Your task to perform on an android device: check the backup settings in the google photos Image 0: 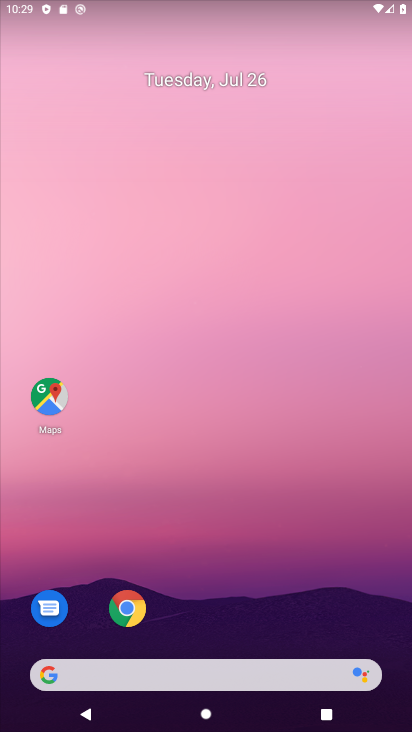
Step 0: drag from (238, 25) to (184, 35)
Your task to perform on an android device: check the backup settings in the google photos Image 1: 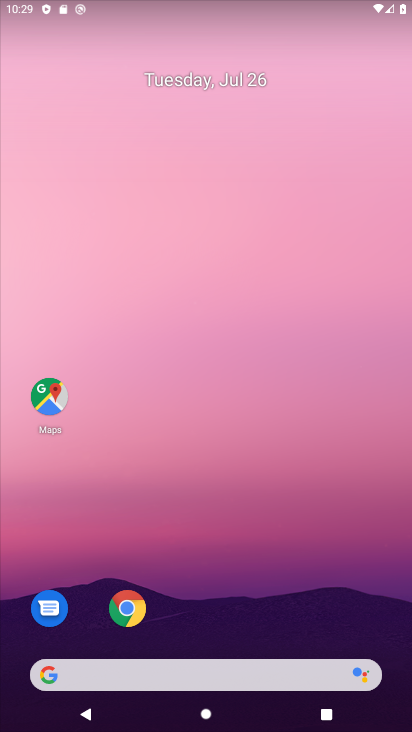
Step 1: drag from (246, 495) to (165, 16)
Your task to perform on an android device: check the backup settings in the google photos Image 2: 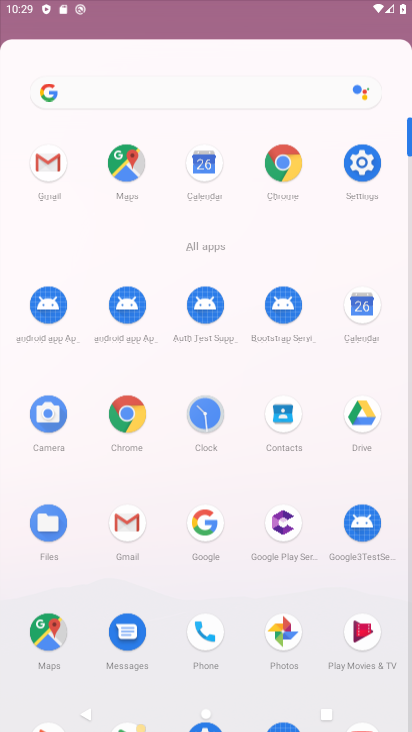
Step 2: drag from (283, 349) to (195, 27)
Your task to perform on an android device: check the backup settings in the google photos Image 3: 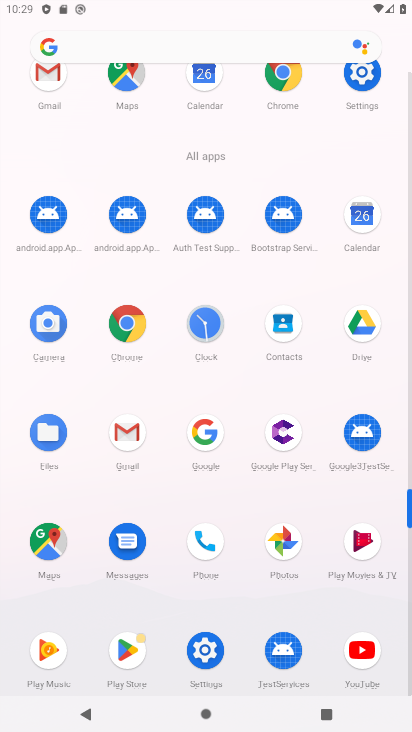
Step 3: click (284, 544)
Your task to perform on an android device: check the backup settings in the google photos Image 4: 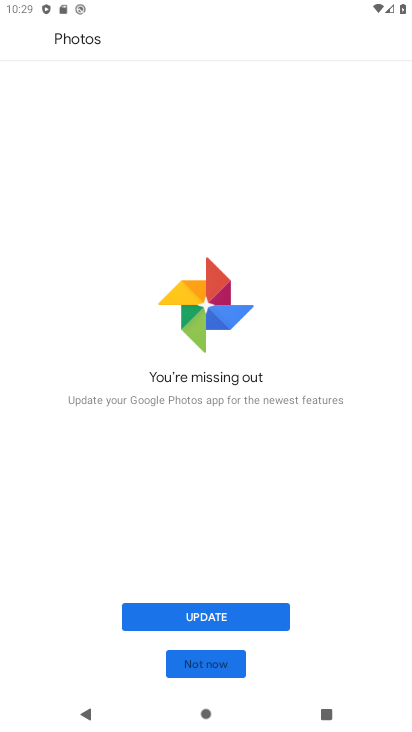
Step 4: click (216, 668)
Your task to perform on an android device: check the backup settings in the google photos Image 5: 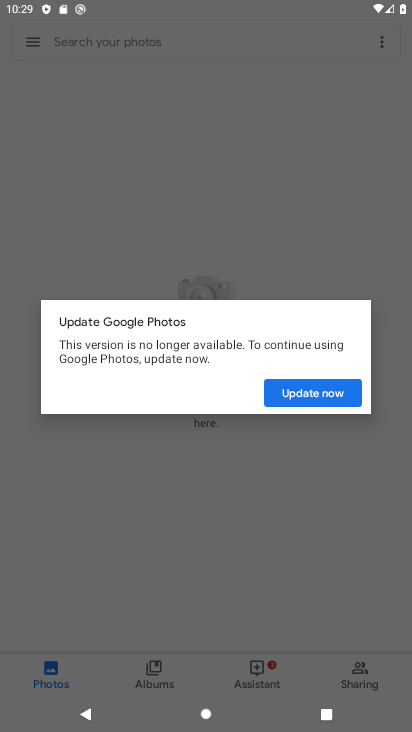
Step 5: click (310, 390)
Your task to perform on an android device: check the backup settings in the google photos Image 6: 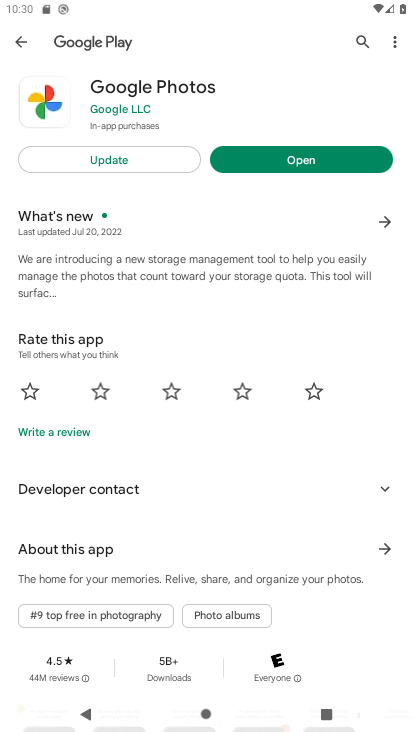
Step 6: click (137, 167)
Your task to perform on an android device: check the backup settings in the google photos Image 7: 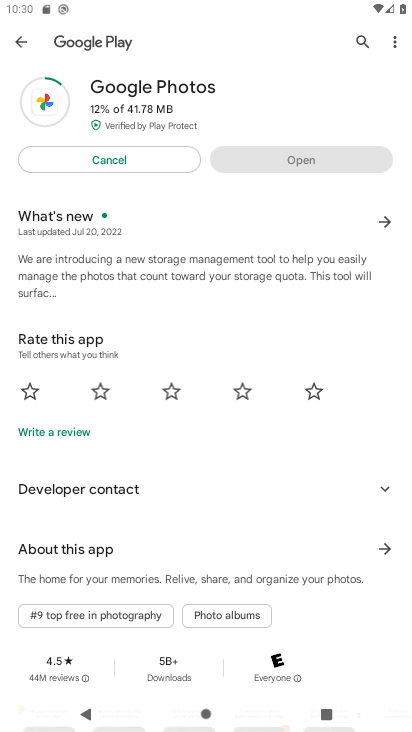
Step 7: task complete